Your task to perform on an android device: empty trash in the gmail app Image 0: 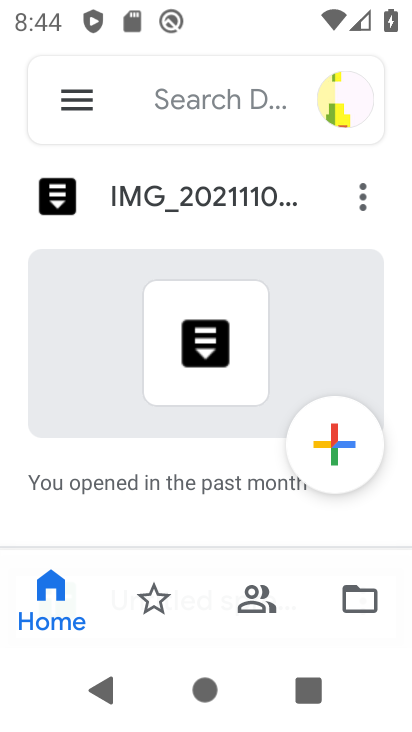
Step 0: press home button
Your task to perform on an android device: empty trash in the gmail app Image 1: 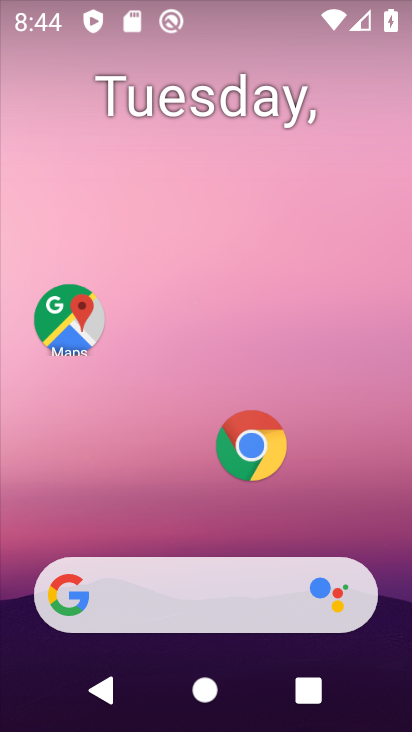
Step 1: drag from (173, 483) to (238, 35)
Your task to perform on an android device: empty trash in the gmail app Image 2: 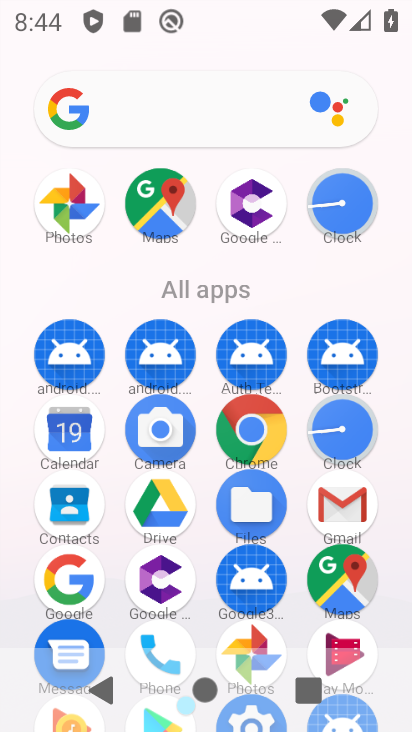
Step 2: click (329, 491)
Your task to perform on an android device: empty trash in the gmail app Image 3: 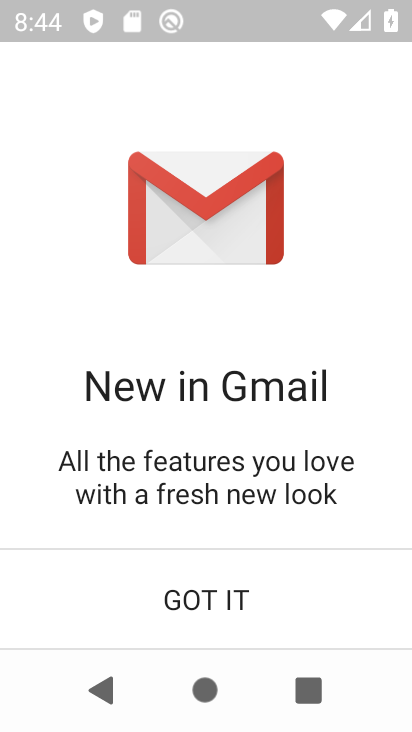
Step 3: click (194, 575)
Your task to perform on an android device: empty trash in the gmail app Image 4: 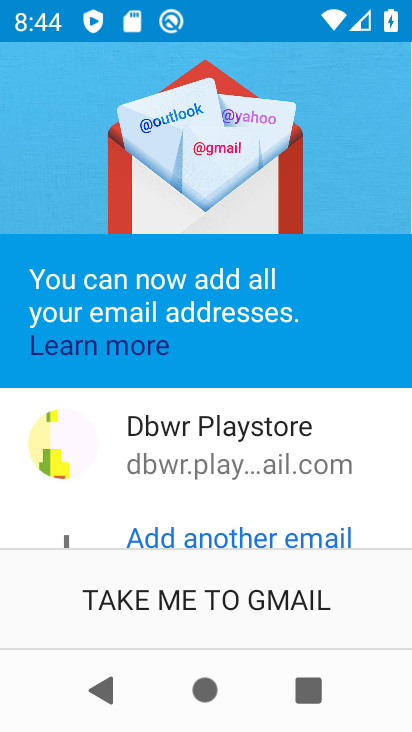
Step 4: click (191, 605)
Your task to perform on an android device: empty trash in the gmail app Image 5: 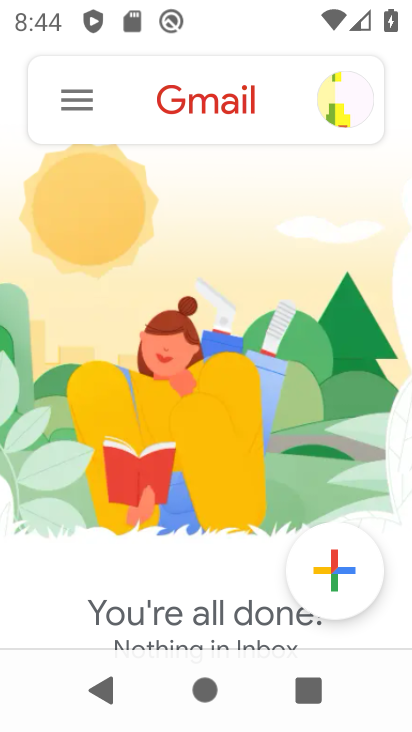
Step 5: click (71, 102)
Your task to perform on an android device: empty trash in the gmail app Image 6: 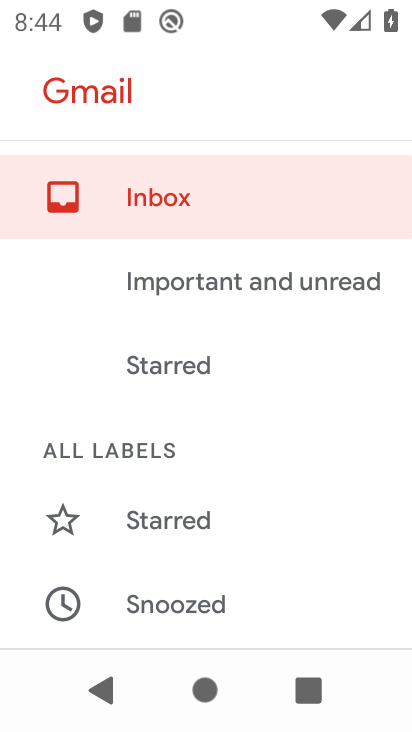
Step 6: drag from (183, 578) to (225, 190)
Your task to perform on an android device: empty trash in the gmail app Image 7: 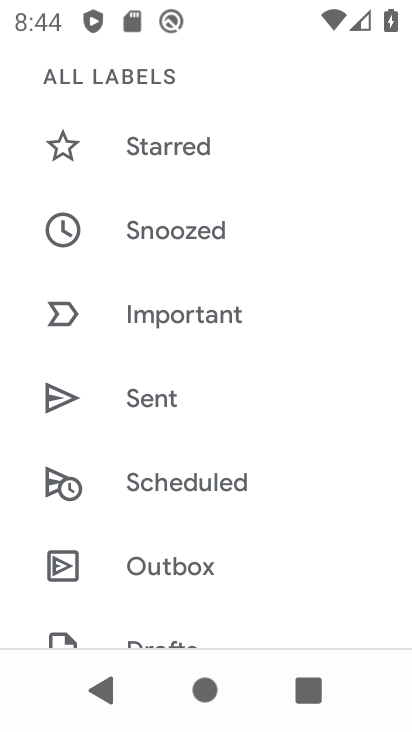
Step 7: drag from (185, 531) to (217, 125)
Your task to perform on an android device: empty trash in the gmail app Image 8: 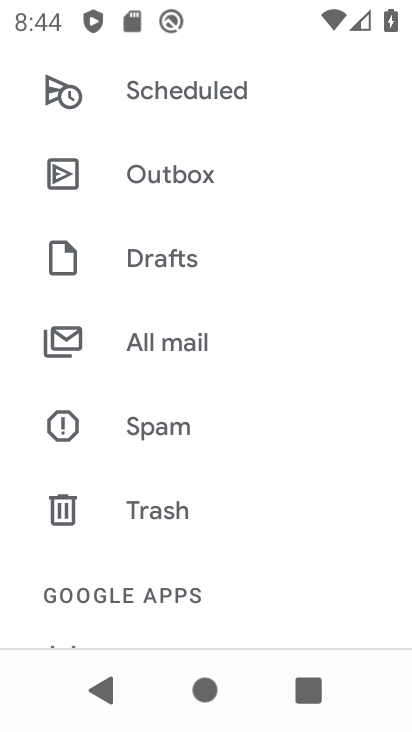
Step 8: click (153, 510)
Your task to perform on an android device: empty trash in the gmail app Image 9: 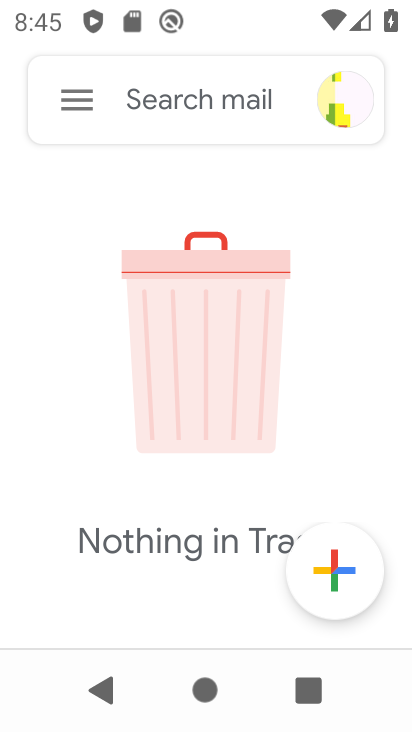
Step 9: task complete